Your task to perform on an android device: Go to Maps Image 0: 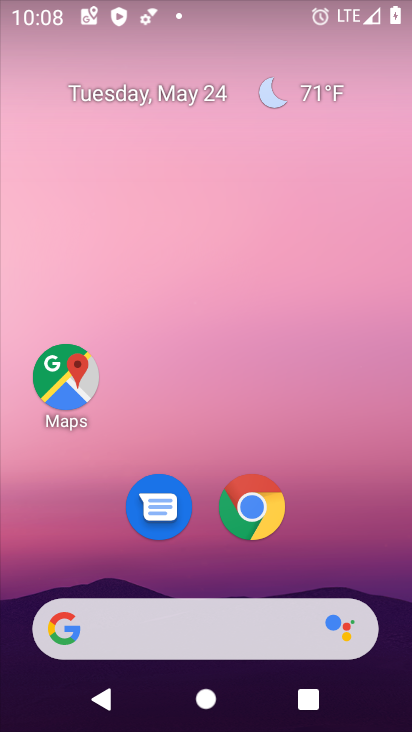
Step 0: drag from (232, 725) to (190, 129)
Your task to perform on an android device: Go to Maps Image 1: 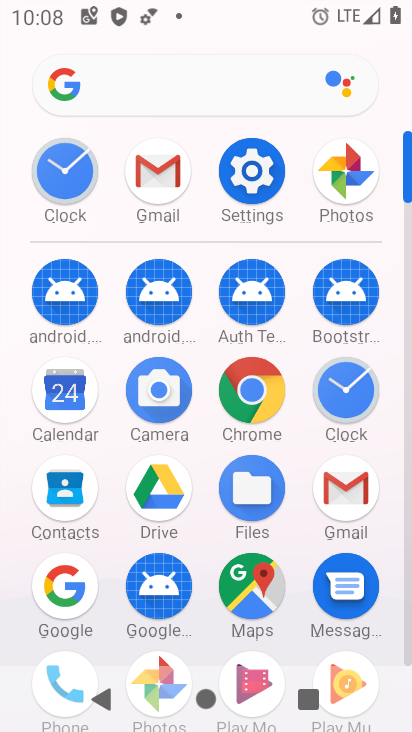
Step 1: click (268, 581)
Your task to perform on an android device: Go to Maps Image 2: 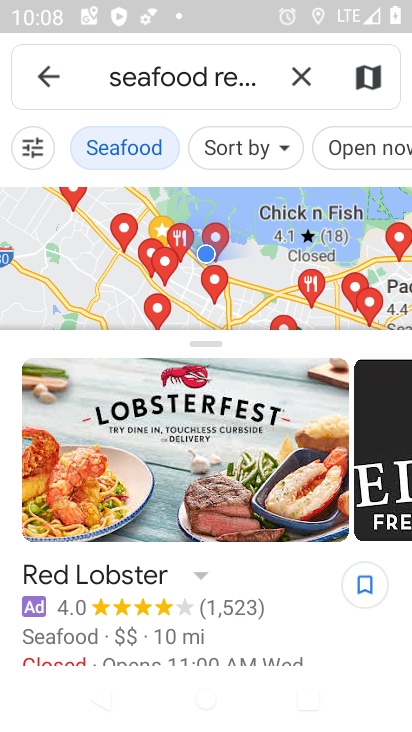
Step 2: task complete